Your task to perform on an android device: Clear the cart on bestbuy. Search for macbook pro on bestbuy, select the first entry, and add it to the cart. Image 0: 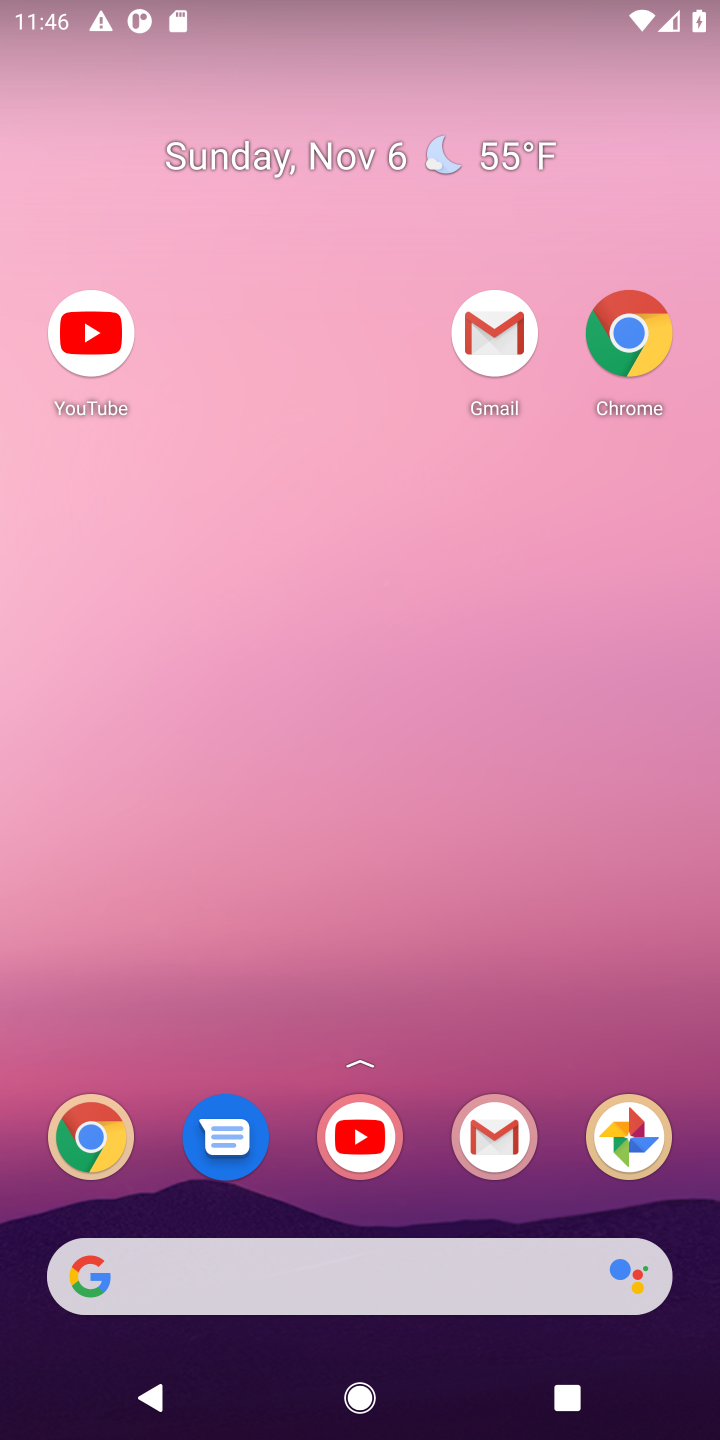
Step 0: drag from (427, 972) to (209, 25)
Your task to perform on an android device: Clear the cart on bestbuy. Search for macbook pro on bestbuy, select the first entry, and add it to the cart. Image 1: 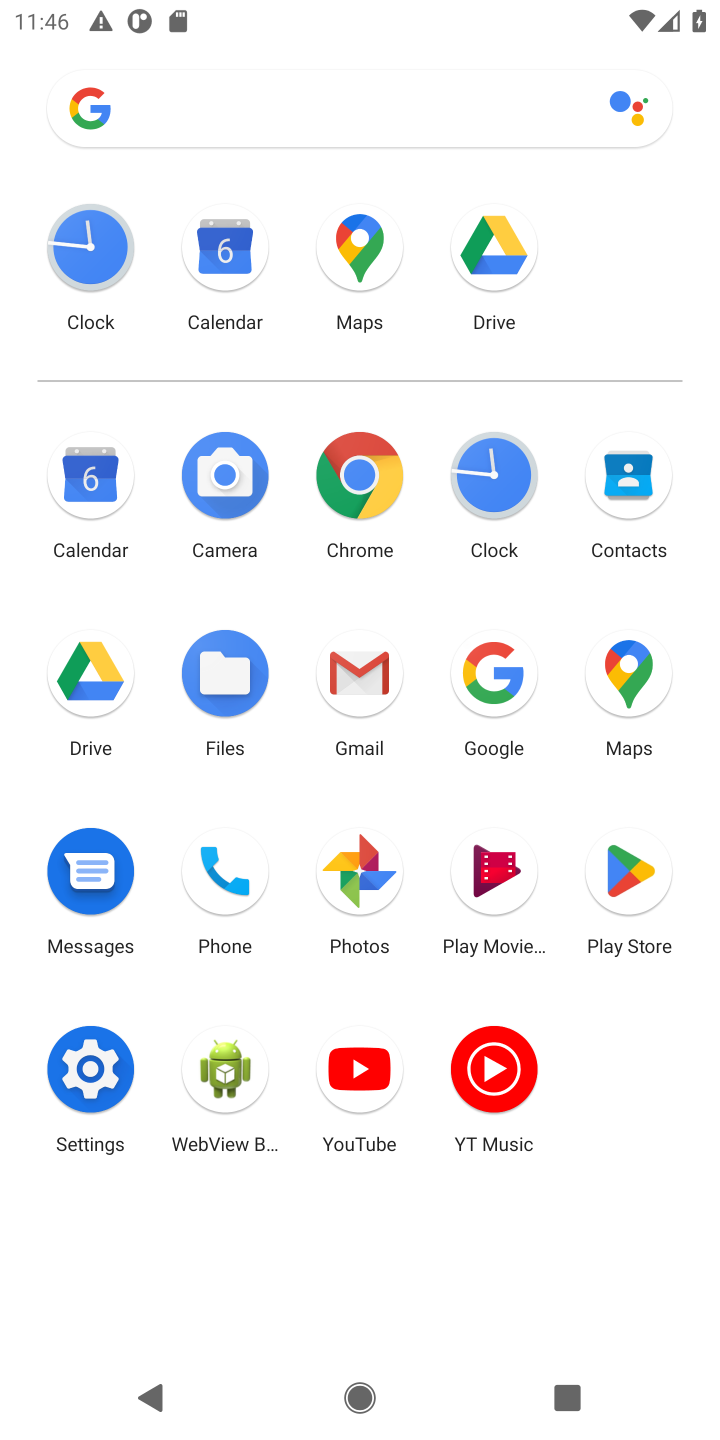
Step 1: click (367, 467)
Your task to perform on an android device: Clear the cart on bestbuy. Search for macbook pro on bestbuy, select the first entry, and add it to the cart. Image 2: 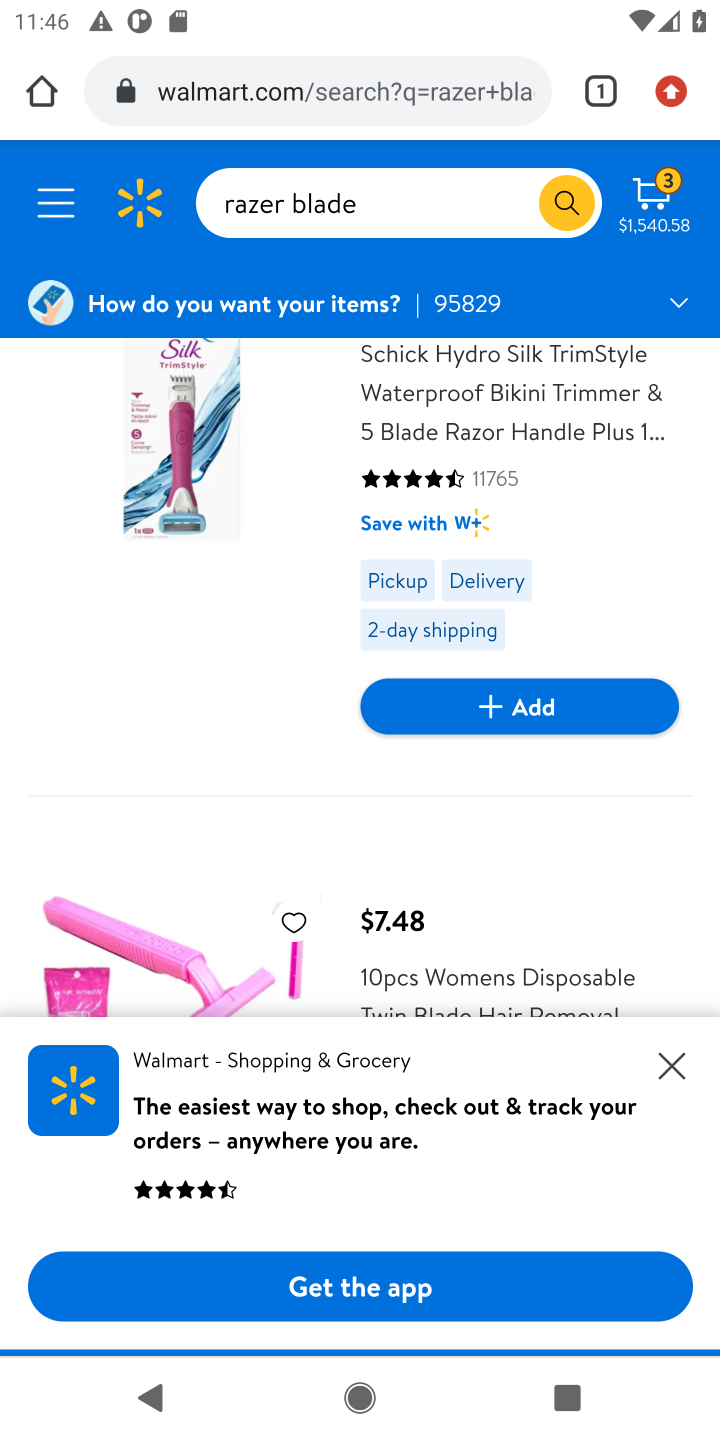
Step 2: click (413, 88)
Your task to perform on an android device: Clear the cart on bestbuy. Search for macbook pro on bestbuy, select the first entry, and add it to the cart. Image 3: 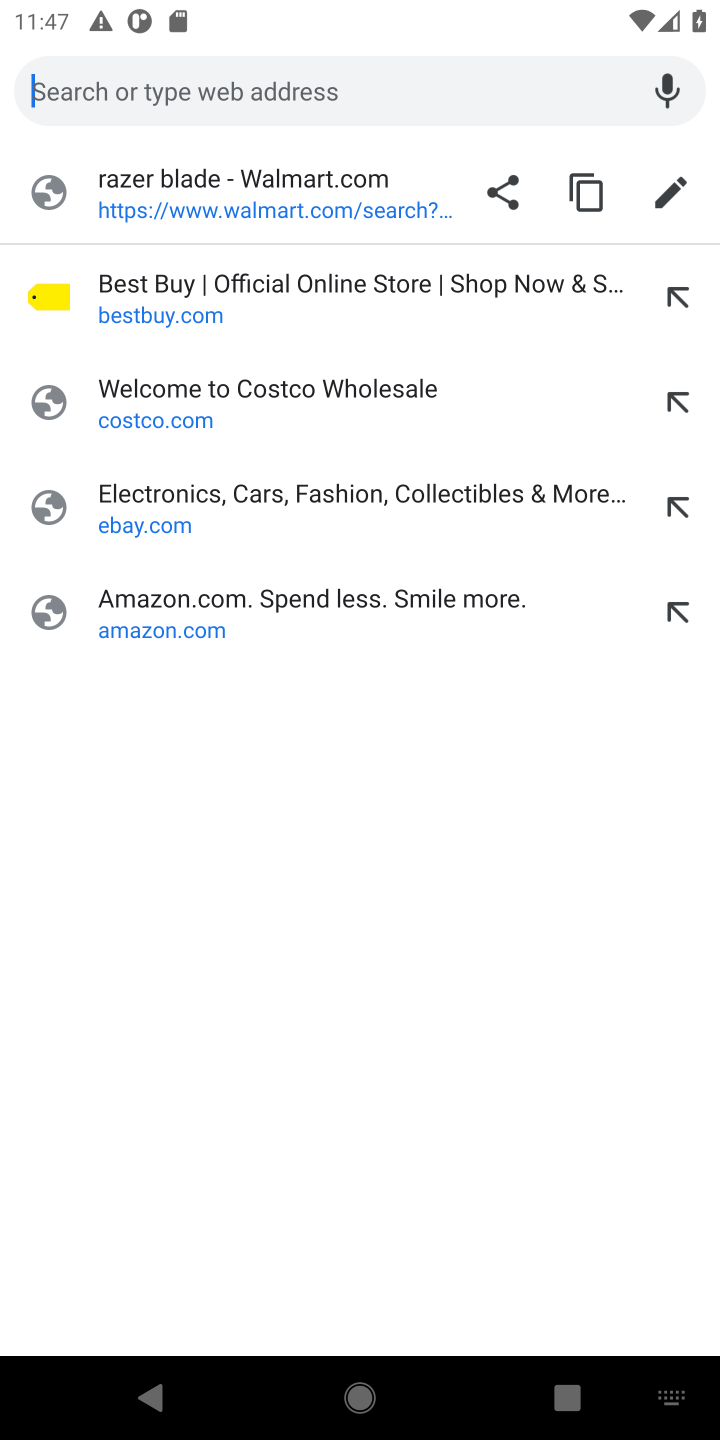
Step 3: type "bestbuy.coom"
Your task to perform on an android device: Clear the cart on bestbuy. Search for macbook pro on bestbuy, select the first entry, and add it to the cart. Image 4: 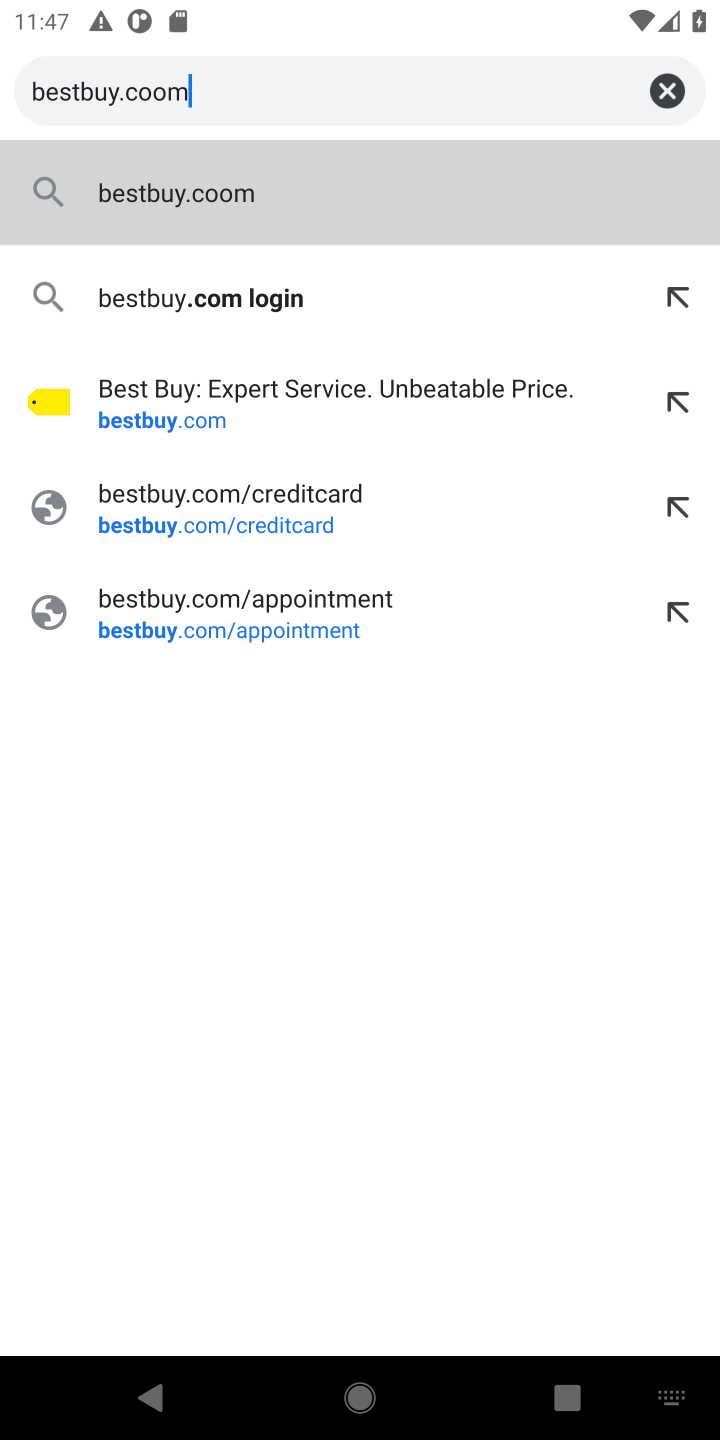
Step 4: click (677, 100)
Your task to perform on an android device: Clear the cart on bestbuy. Search for macbook pro on bestbuy, select the first entry, and add it to the cart. Image 5: 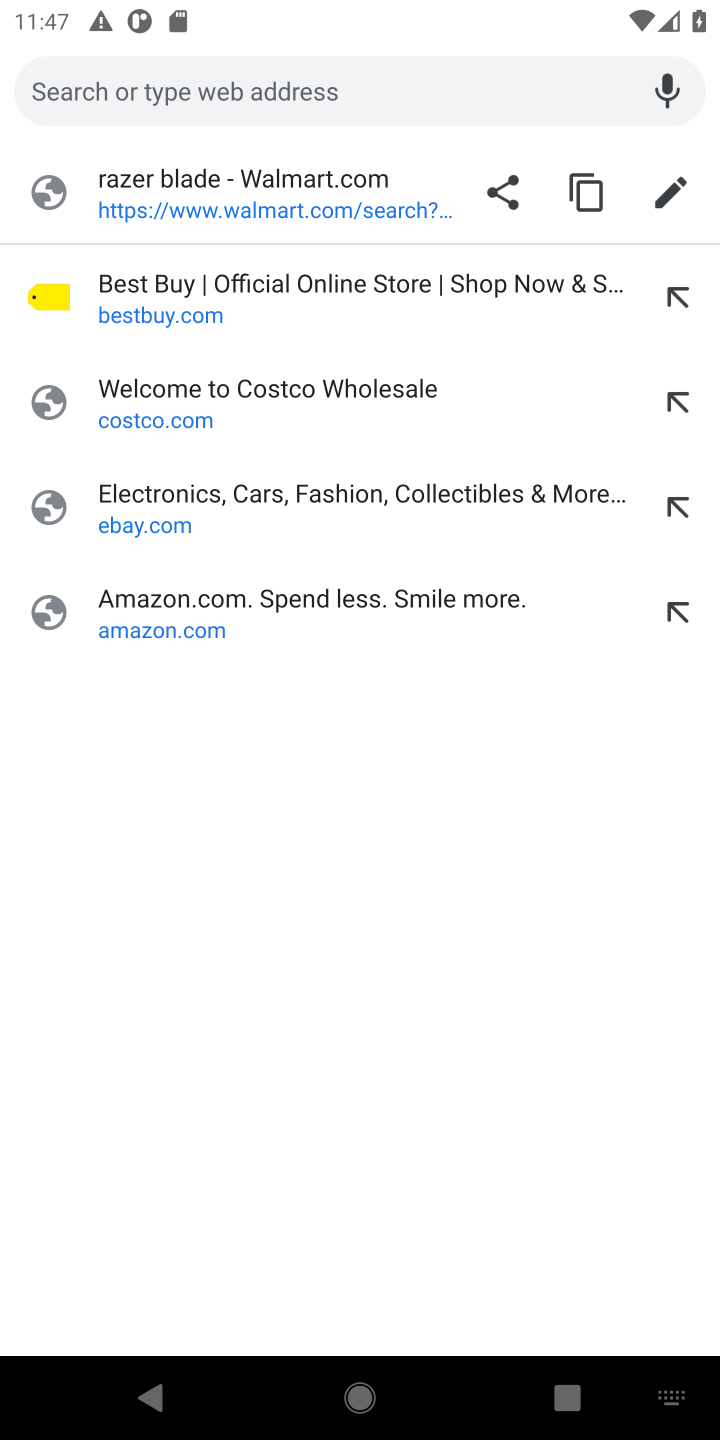
Step 5: type "best.com"
Your task to perform on an android device: Clear the cart on bestbuy. Search for macbook pro on bestbuy, select the first entry, and add it to the cart. Image 6: 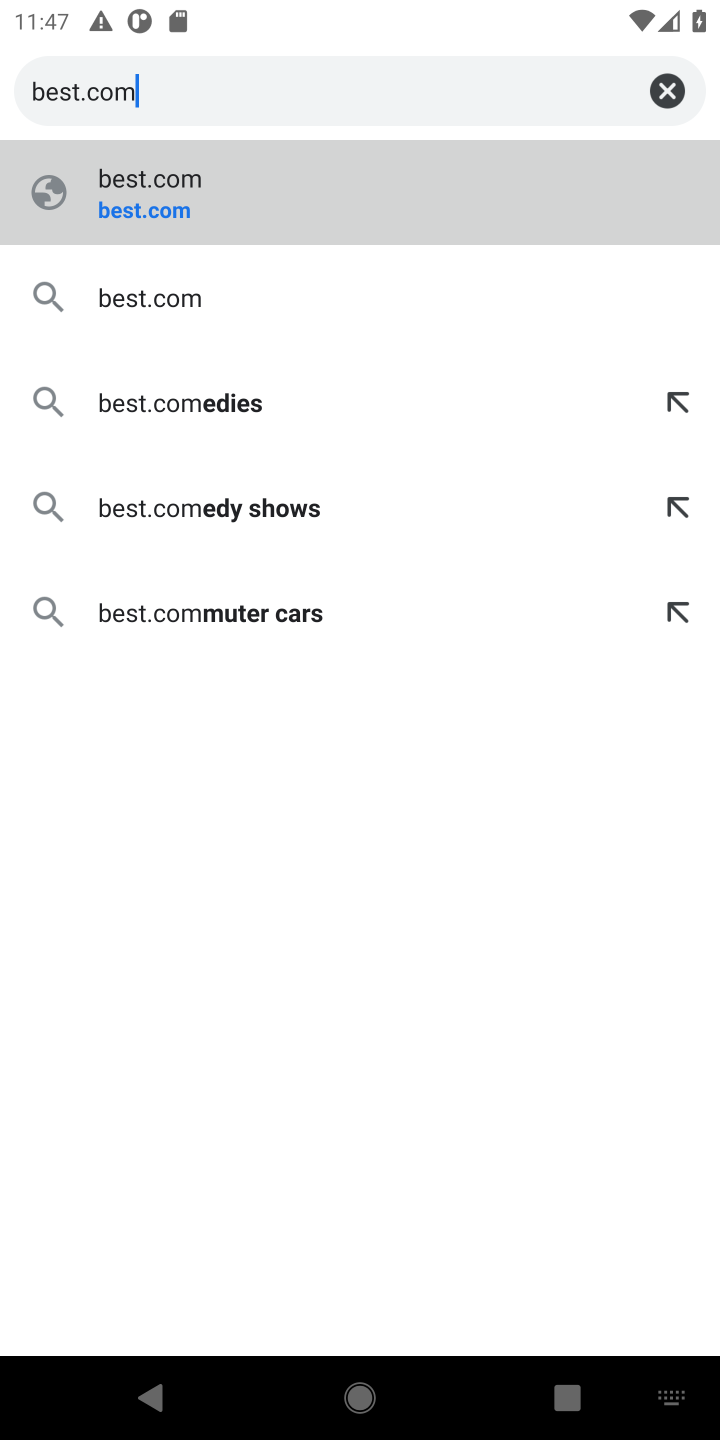
Step 6: click (662, 91)
Your task to perform on an android device: Clear the cart on bestbuy. Search for macbook pro on bestbuy, select the first entry, and add it to the cart. Image 7: 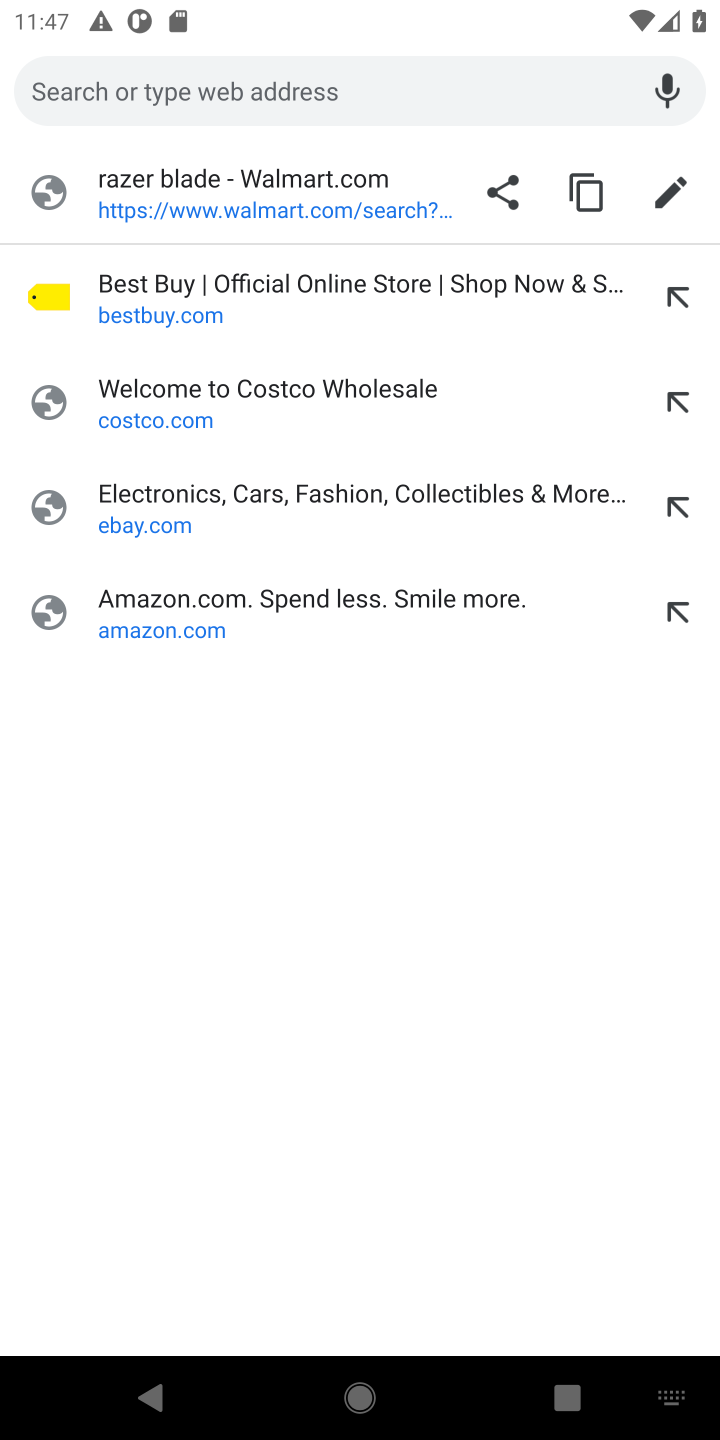
Step 7: type "bestbuy.com"
Your task to perform on an android device: Clear the cart on bestbuy. Search for macbook pro on bestbuy, select the first entry, and add it to the cart. Image 8: 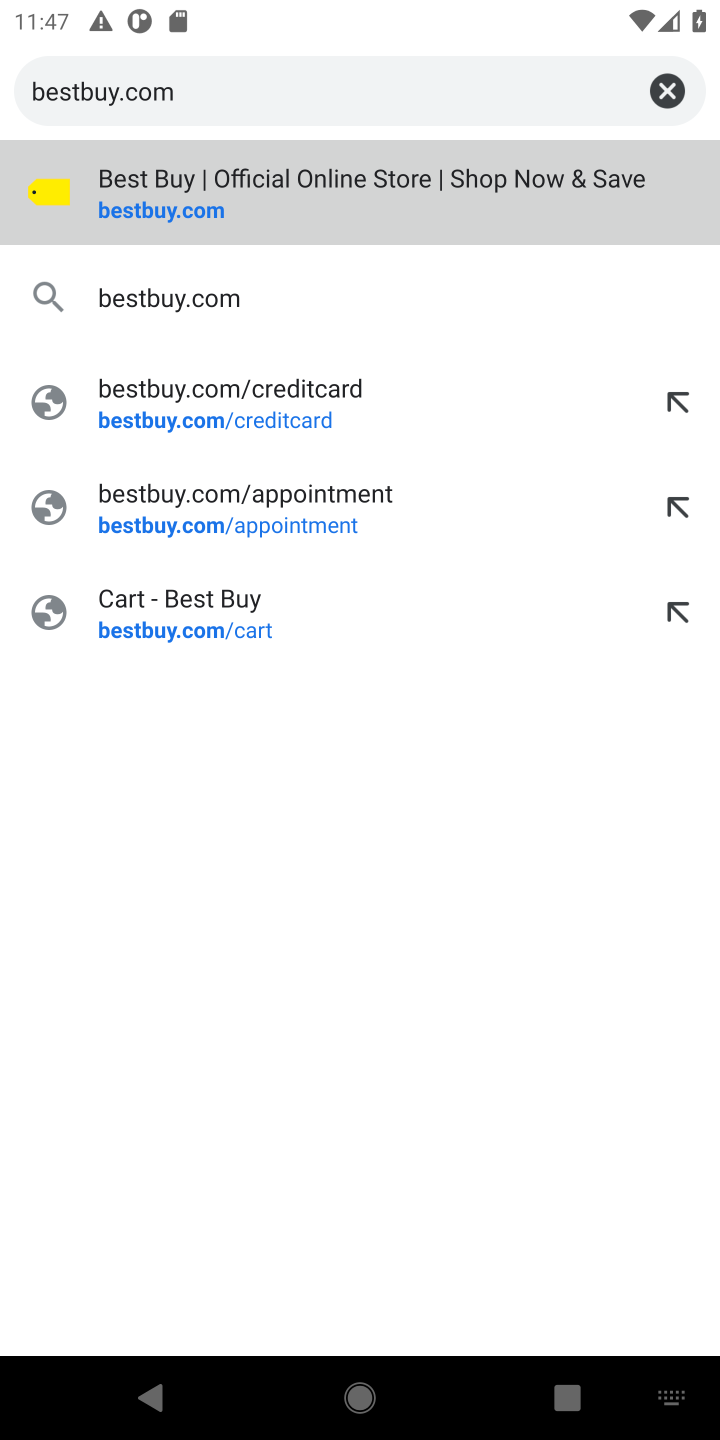
Step 8: press enter
Your task to perform on an android device: Clear the cart on bestbuy. Search for macbook pro on bestbuy, select the first entry, and add it to the cart. Image 9: 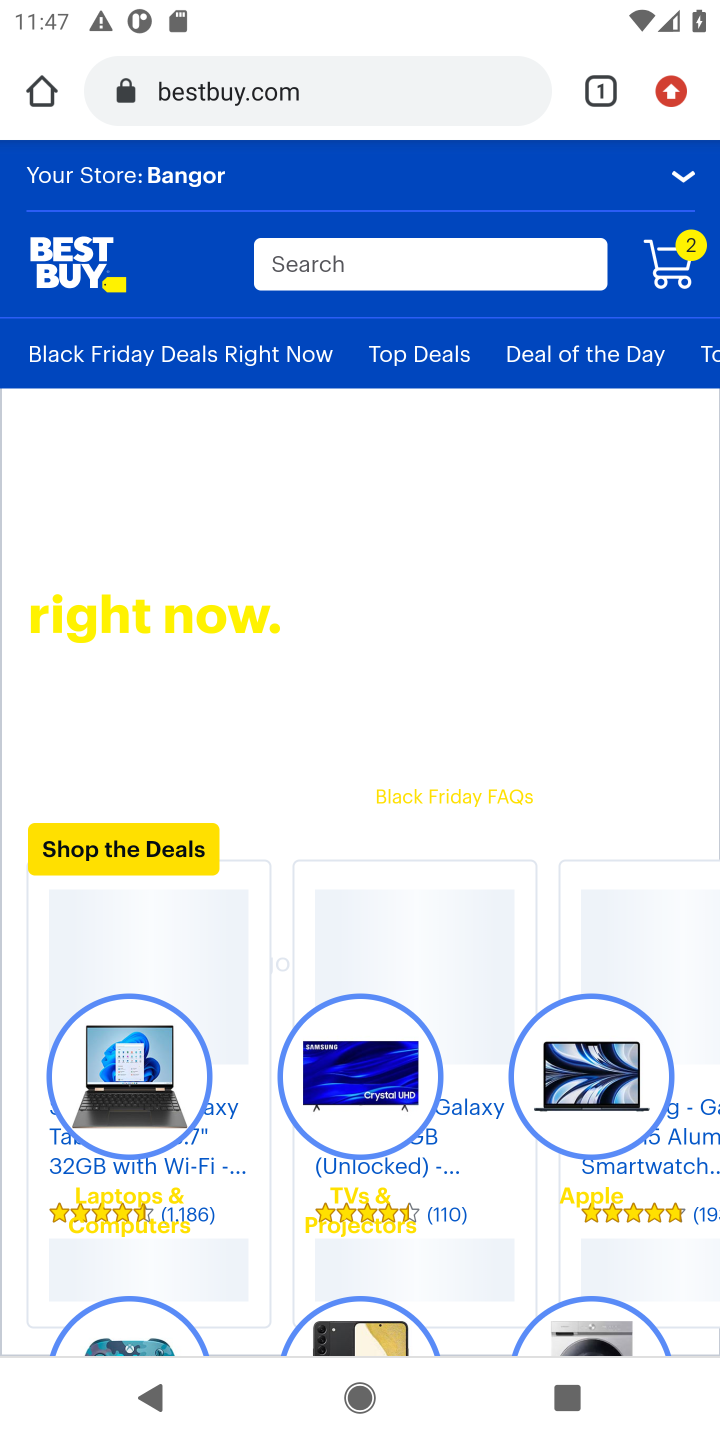
Step 9: click (679, 259)
Your task to perform on an android device: Clear the cart on bestbuy. Search for macbook pro on bestbuy, select the first entry, and add it to the cart. Image 10: 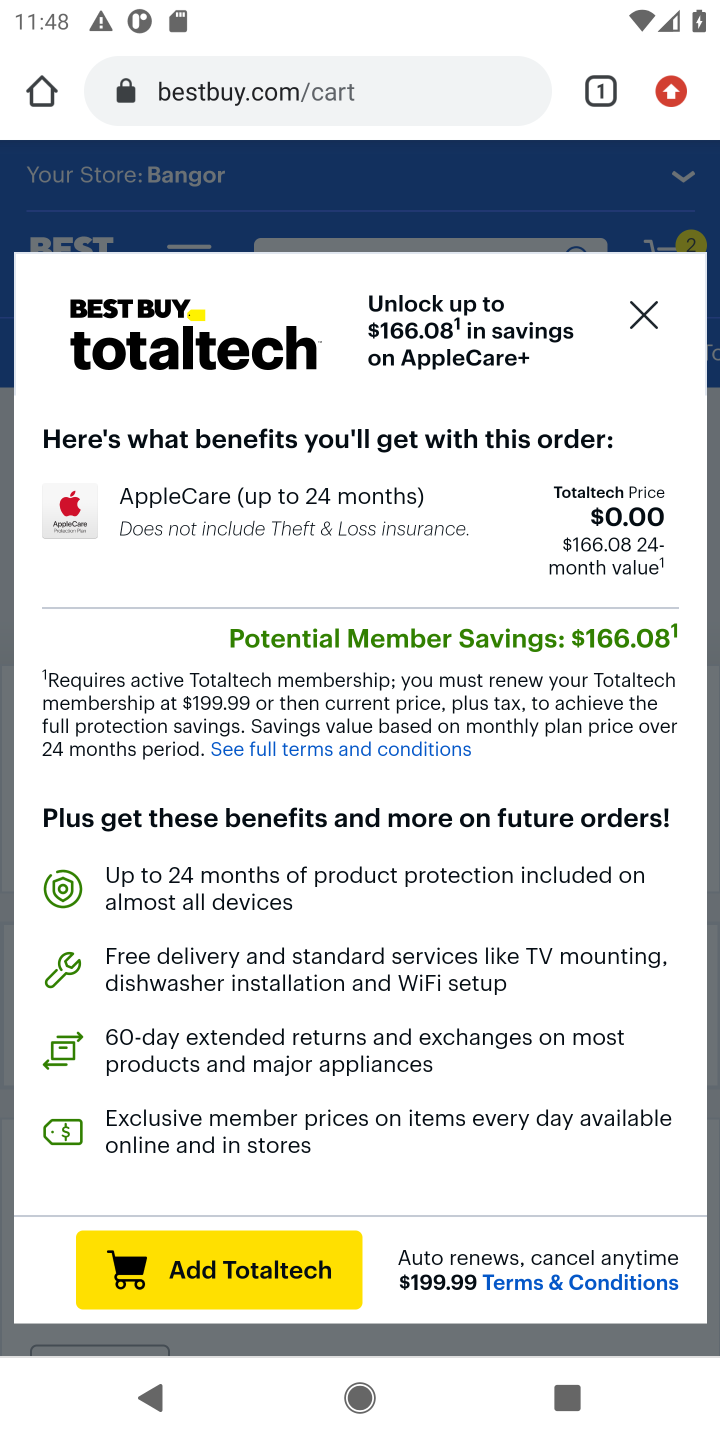
Step 10: click (655, 301)
Your task to perform on an android device: Clear the cart on bestbuy. Search for macbook pro on bestbuy, select the first entry, and add it to the cart. Image 11: 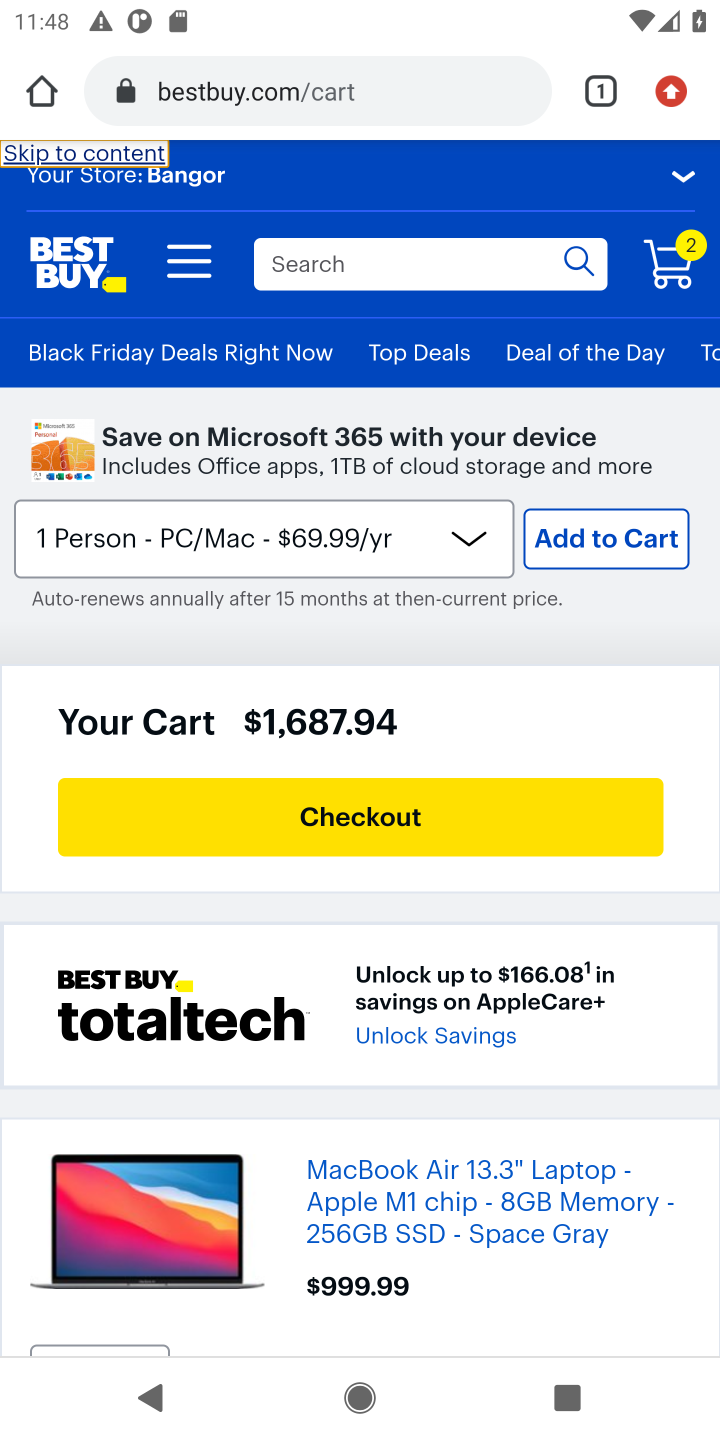
Step 11: drag from (239, 1144) to (290, 502)
Your task to perform on an android device: Clear the cart on bestbuy. Search for macbook pro on bestbuy, select the first entry, and add it to the cart. Image 12: 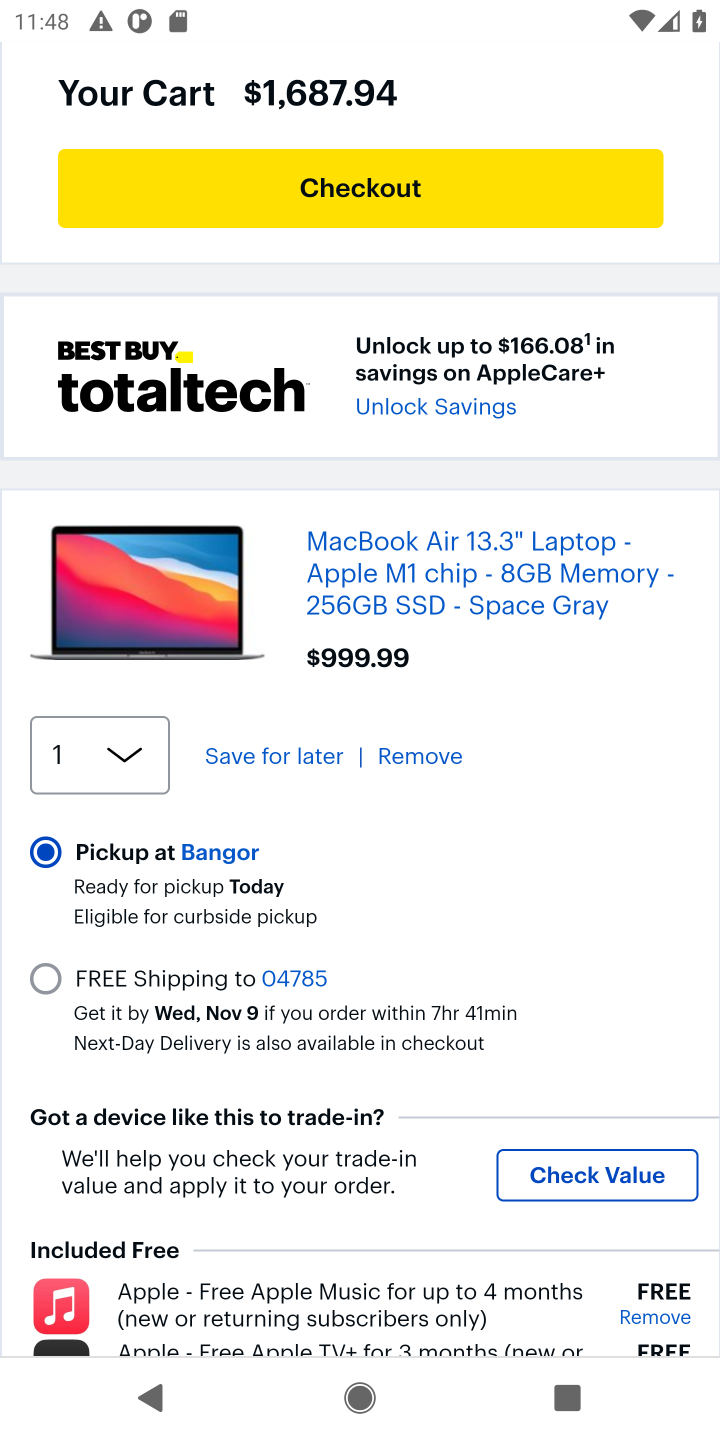
Step 12: click (381, 754)
Your task to perform on an android device: Clear the cart on bestbuy. Search for macbook pro on bestbuy, select the first entry, and add it to the cart. Image 13: 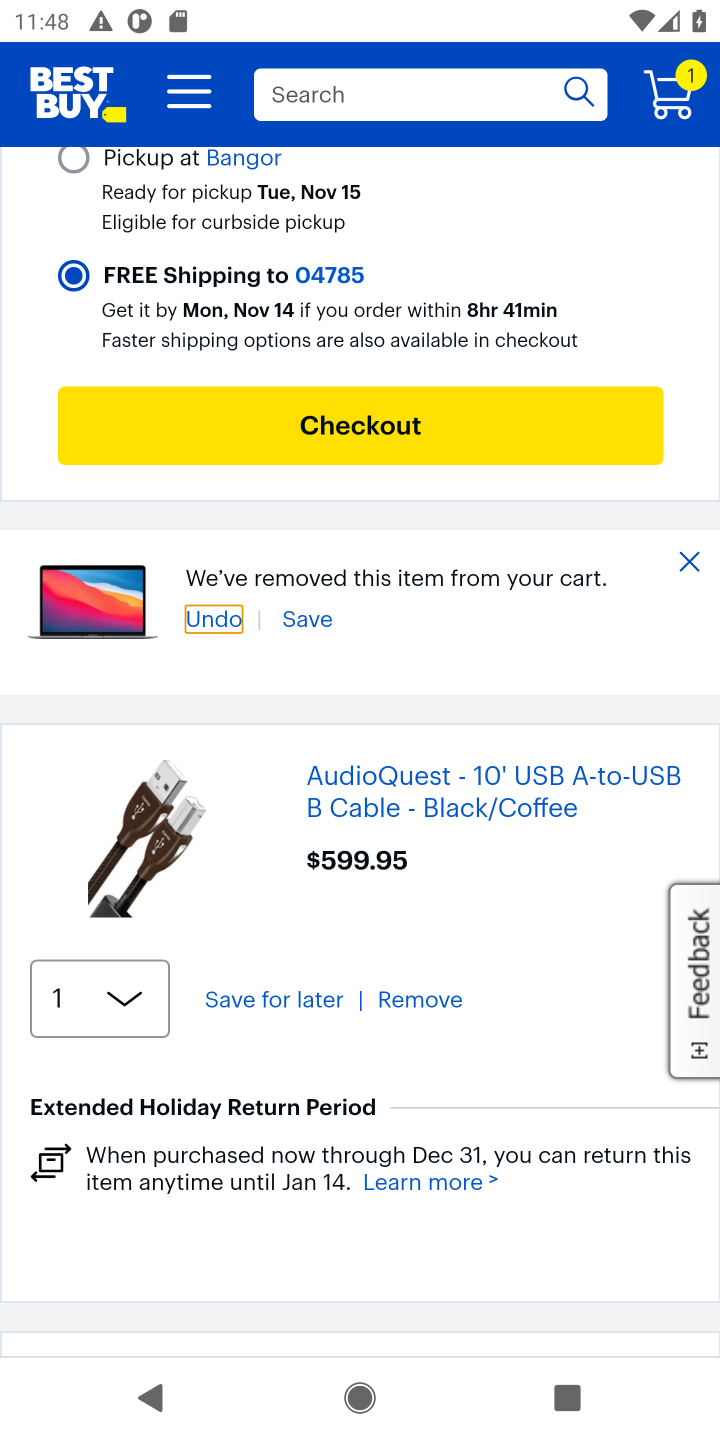
Step 13: click (392, 992)
Your task to perform on an android device: Clear the cart on bestbuy. Search for macbook pro on bestbuy, select the first entry, and add it to the cart. Image 14: 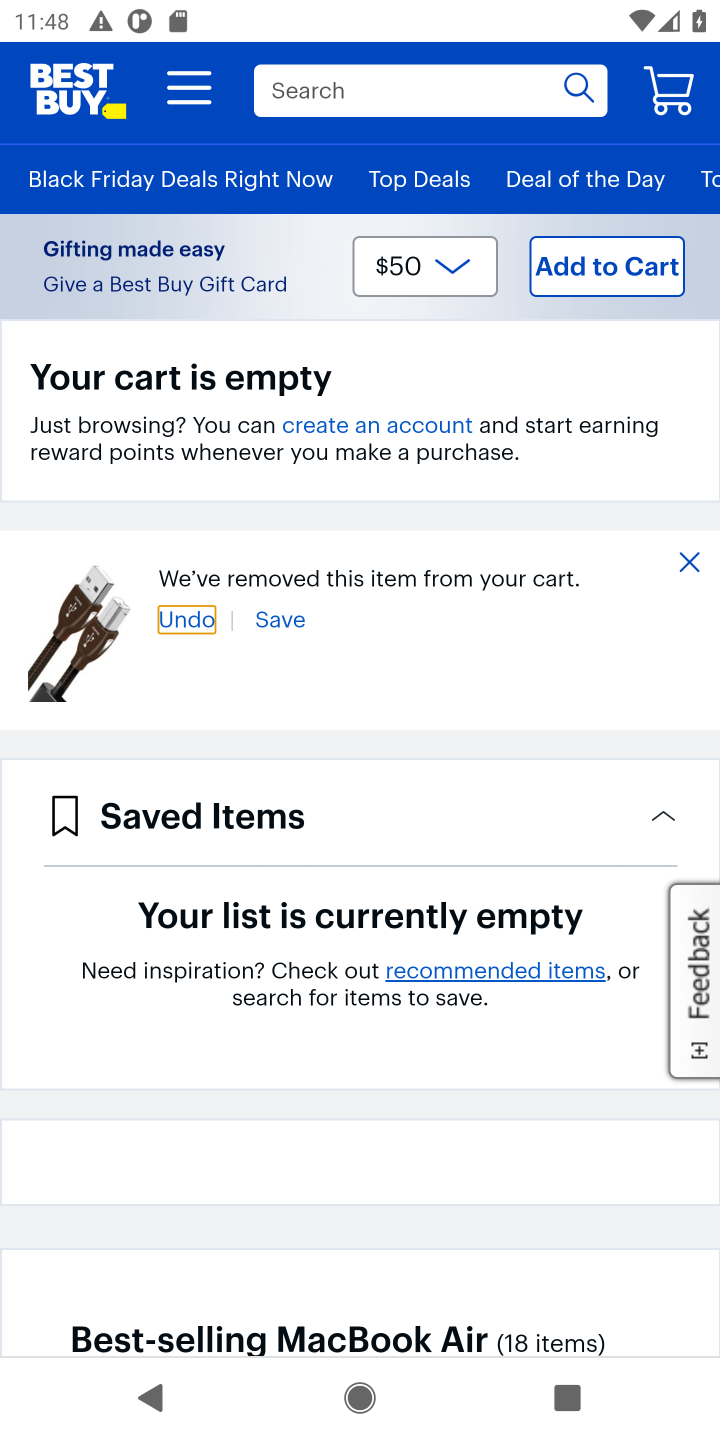
Step 14: click (690, 564)
Your task to perform on an android device: Clear the cart on bestbuy. Search for macbook pro on bestbuy, select the first entry, and add it to the cart. Image 15: 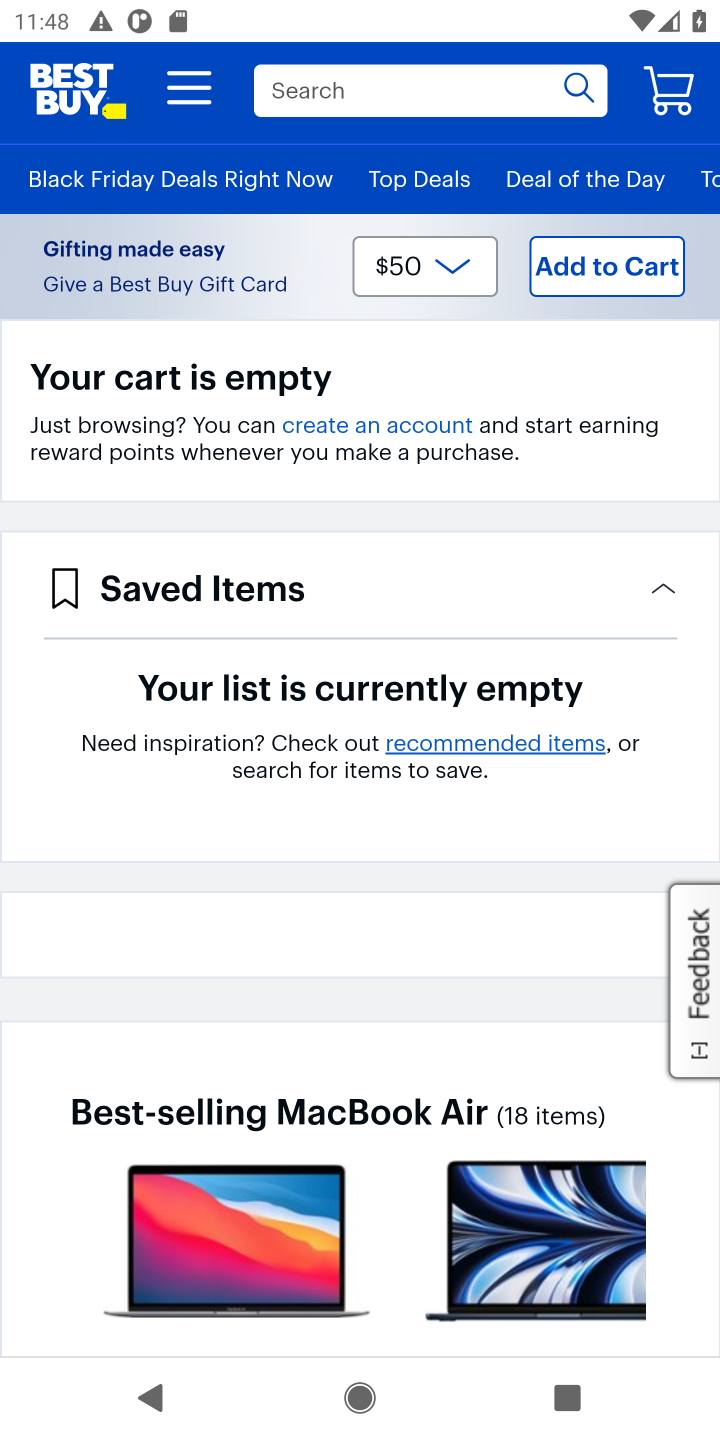
Step 15: click (441, 90)
Your task to perform on an android device: Clear the cart on bestbuy. Search for macbook pro on bestbuy, select the first entry, and add it to the cart. Image 16: 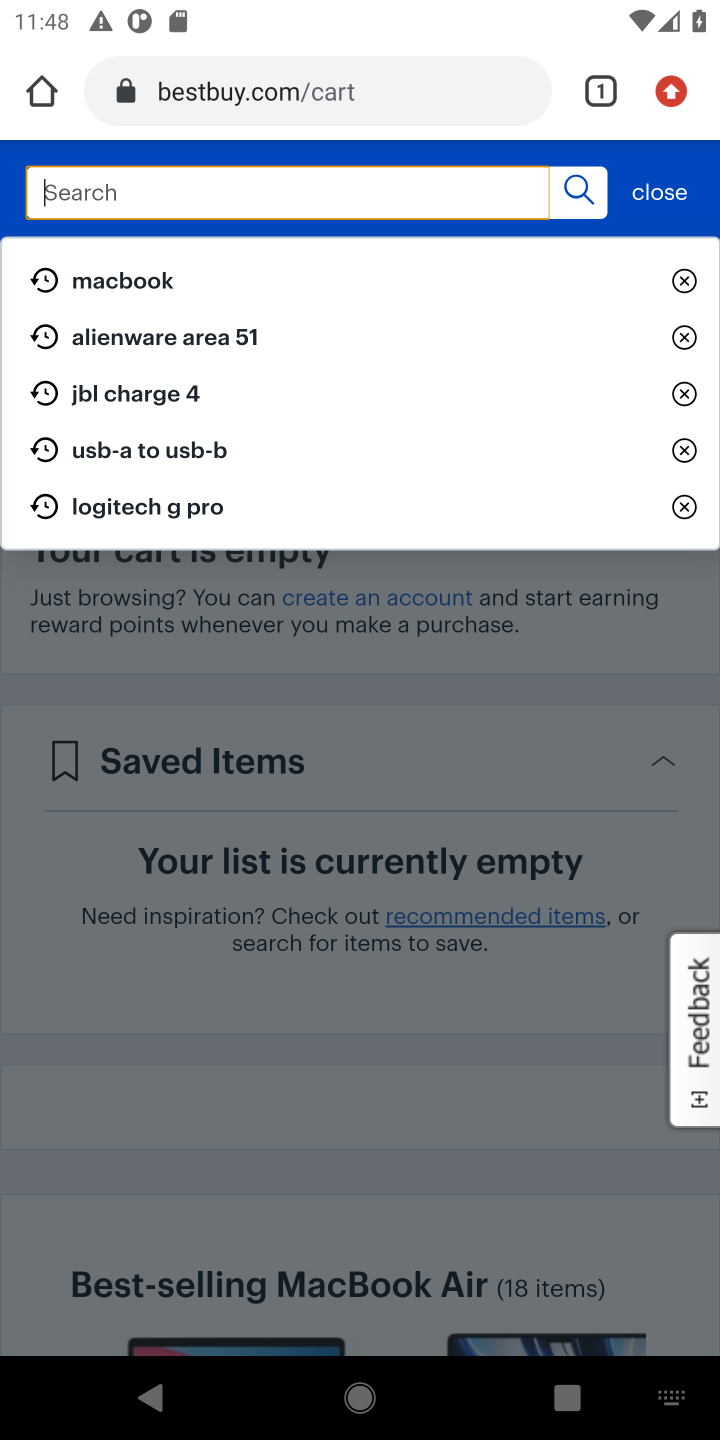
Step 16: type "macbook pro"
Your task to perform on an android device: Clear the cart on bestbuy. Search for macbook pro on bestbuy, select the first entry, and add it to the cart. Image 17: 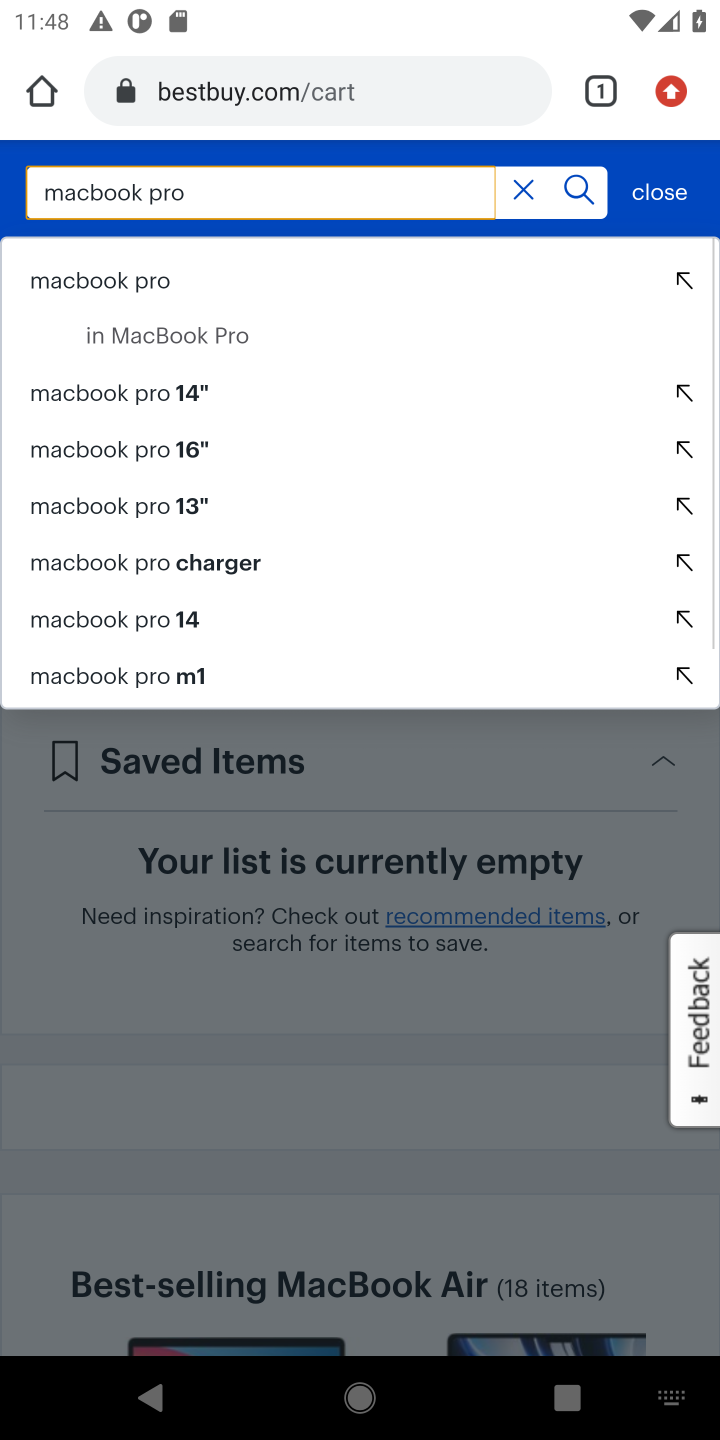
Step 17: press enter
Your task to perform on an android device: Clear the cart on bestbuy. Search for macbook pro on bestbuy, select the first entry, and add it to the cart. Image 18: 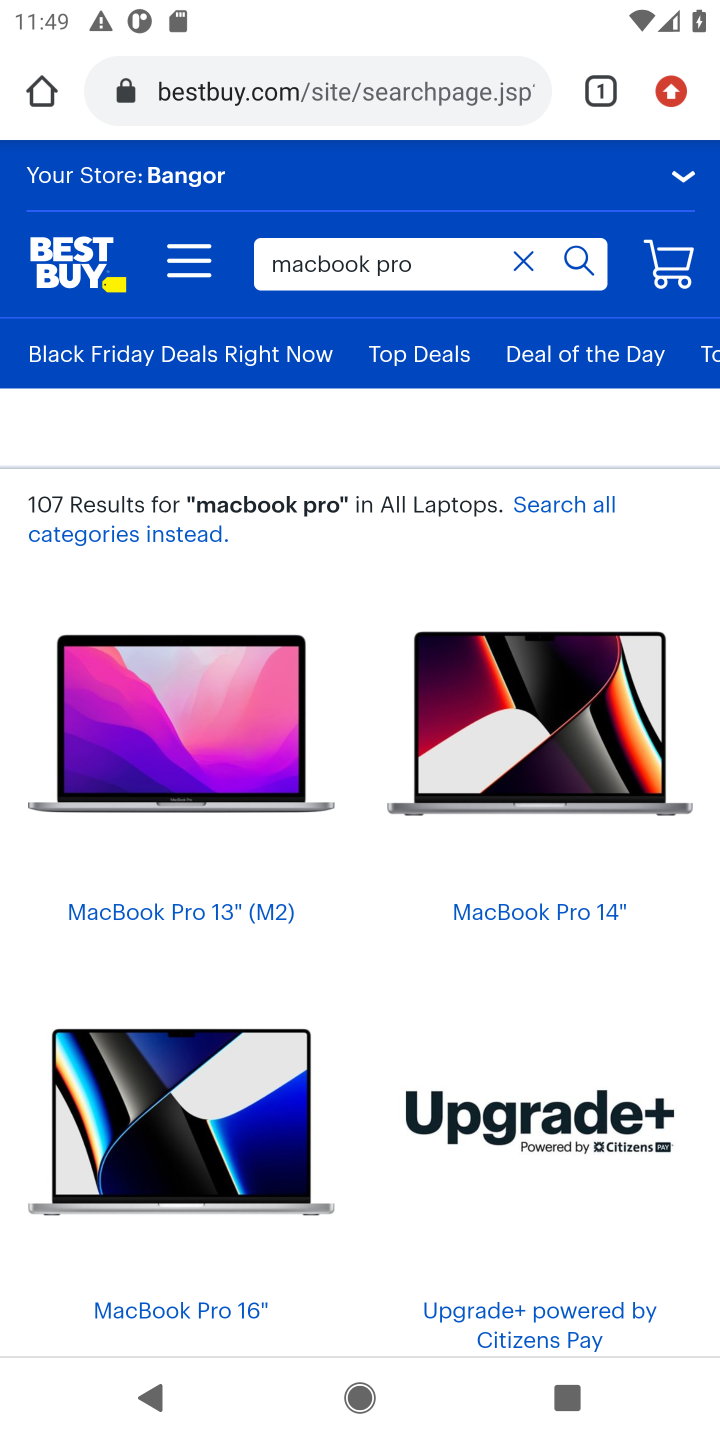
Step 18: click (241, 774)
Your task to perform on an android device: Clear the cart on bestbuy. Search for macbook pro on bestbuy, select the first entry, and add it to the cart. Image 19: 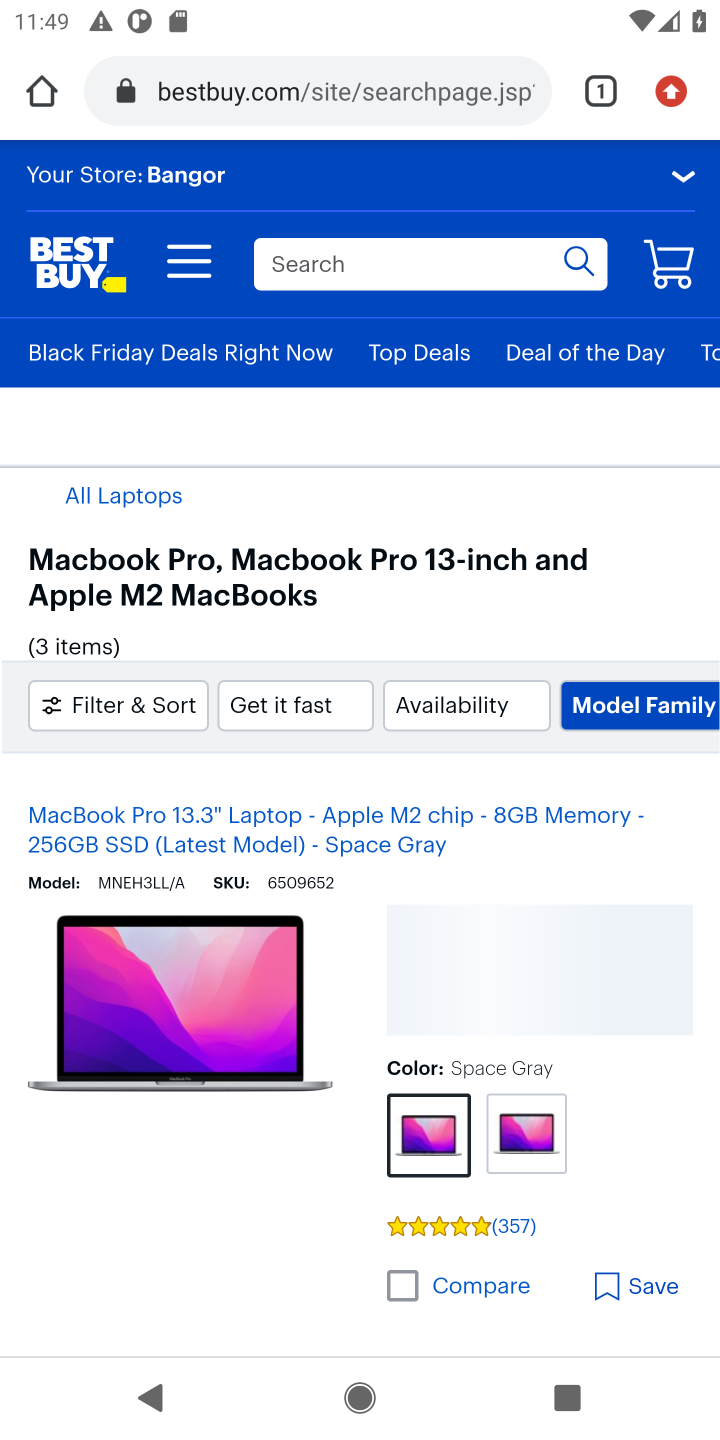
Step 19: drag from (409, 1055) to (382, 433)
Your task to perform on an android device: Clear the cart on bestbuy. Search for macbook pro on bestbuy, select the first entry, and add it to the cart. Image 20: 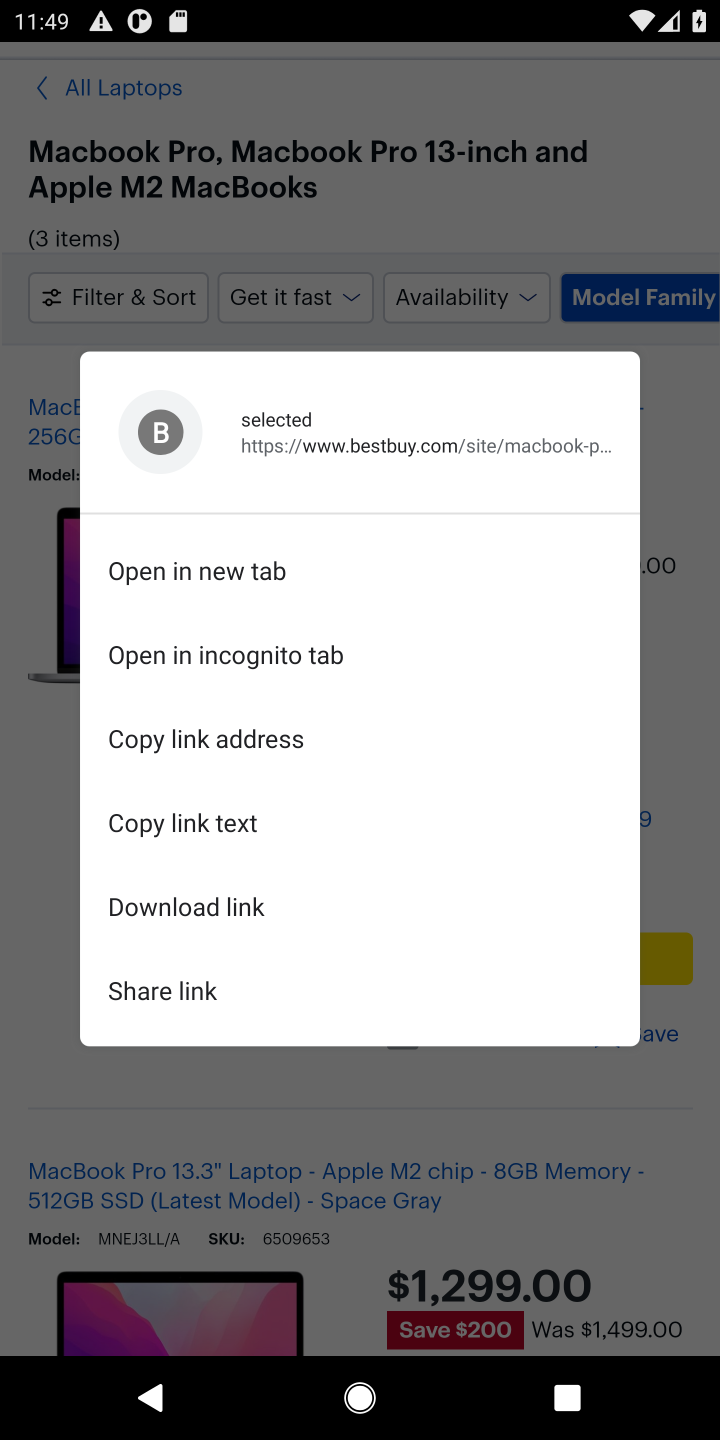
Step 20: click (9, 581)
Your task to perform on an android device: Clear the cart on bestbuy. Search for macbook pro on bestbuy, select the first entry, and add it to the cart. Image 21: 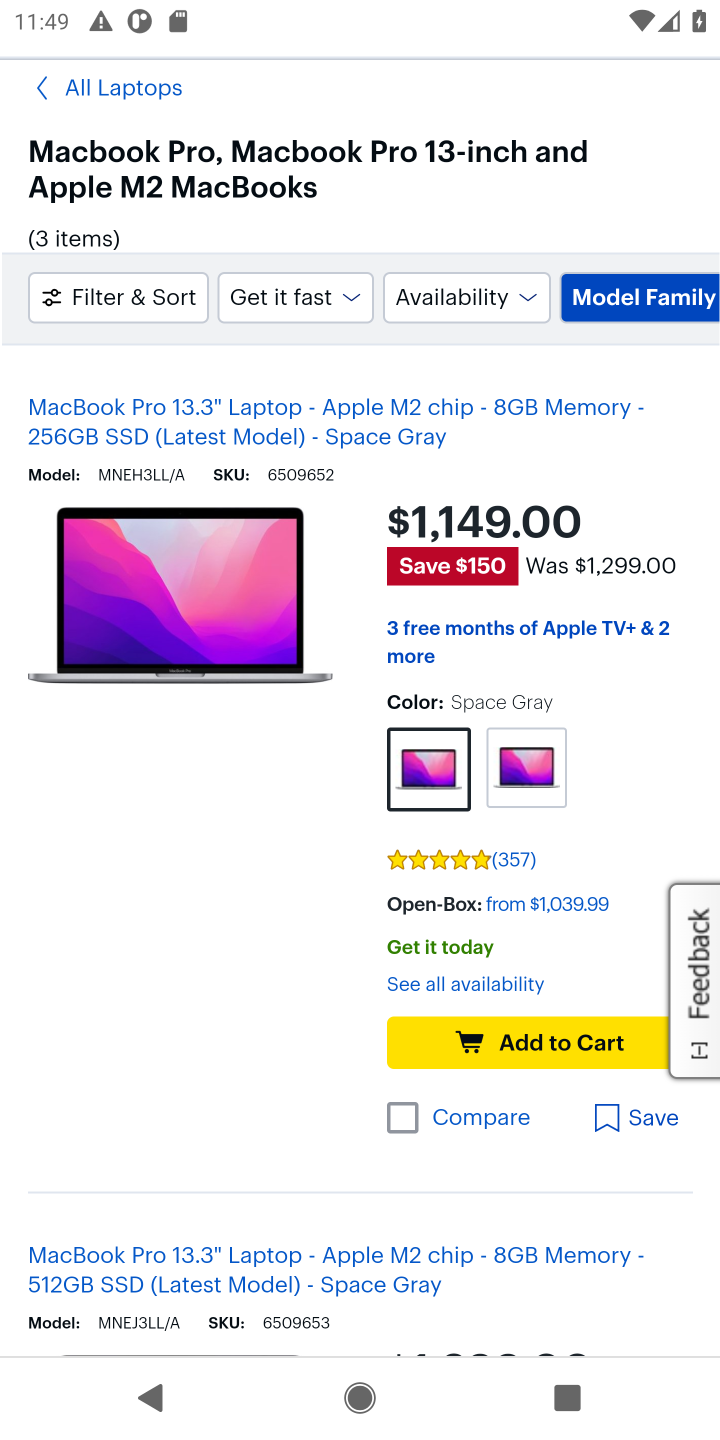
Step 21: click (498, 1049)
Your task to perform on an android device: Clear the cart on bestbuy. Search for macbook pro on bestbuy, select the first entry, and add it to the cart. Image 22: 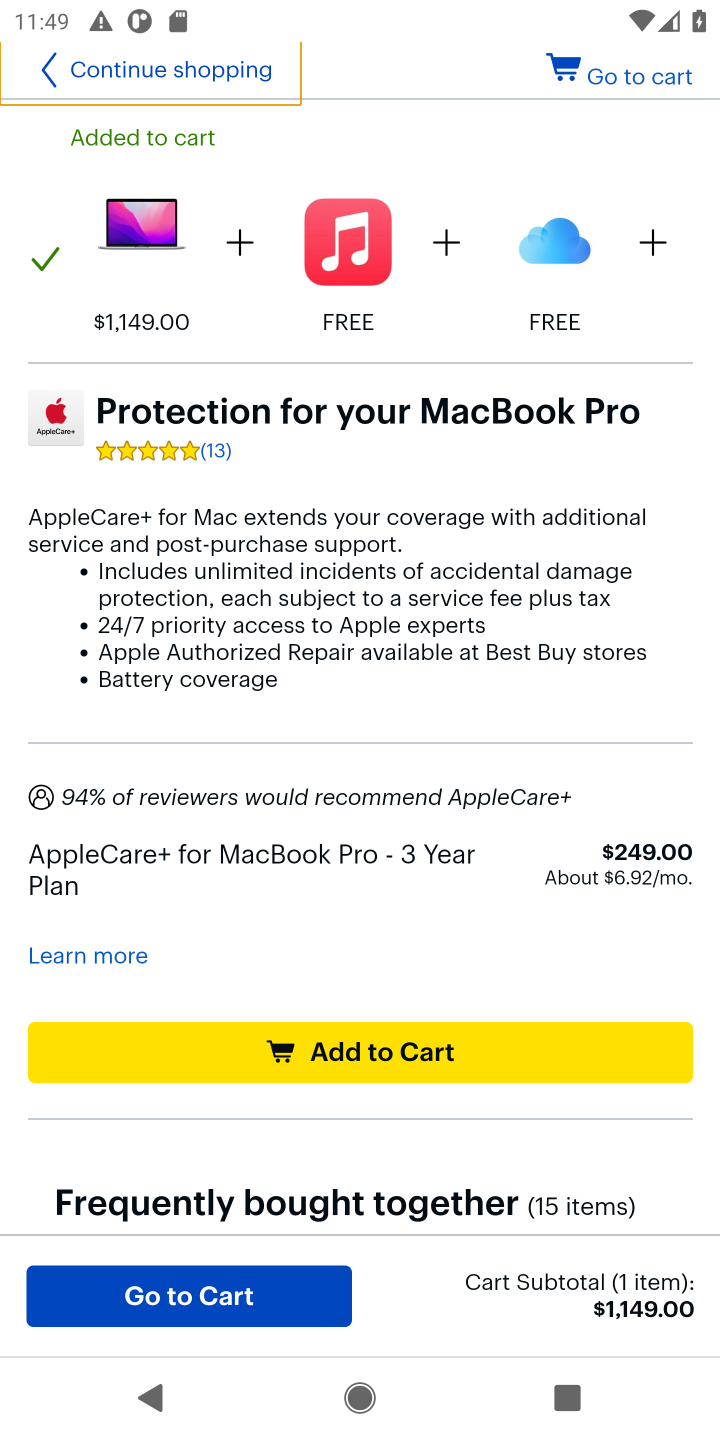
Step 22: task complete